Your task to perform on an android device: Show me popular games on the Play Store Image 0: 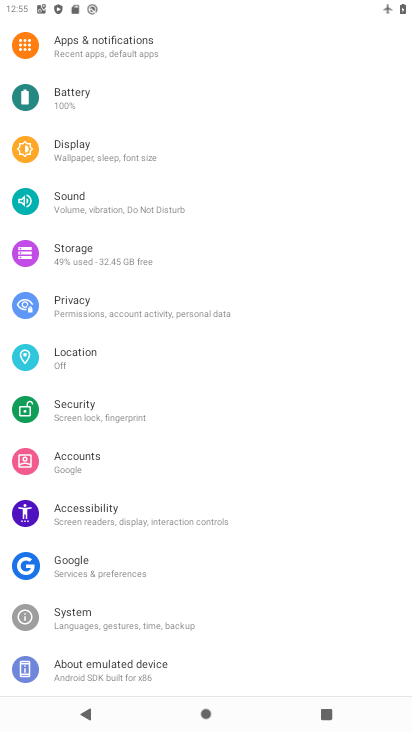
Step 0: press home button
Your task to perform on an android device: Show me popular games on the Play Store Image 1: 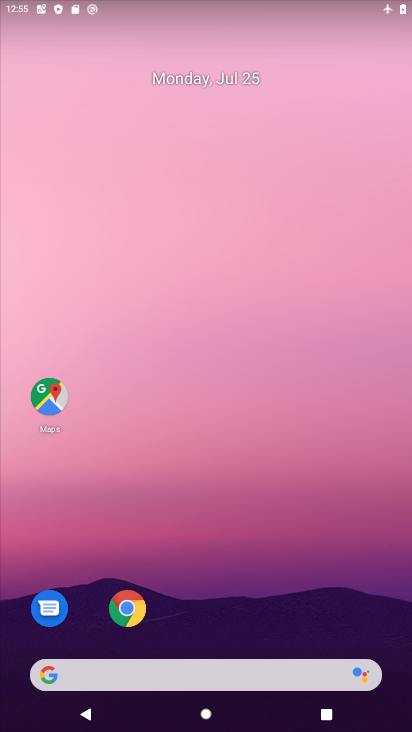
Step 1: drag from (220, 644) to (256, 20)
Your task to perform on an android device: Show me popular games on the Play Store Image 2: 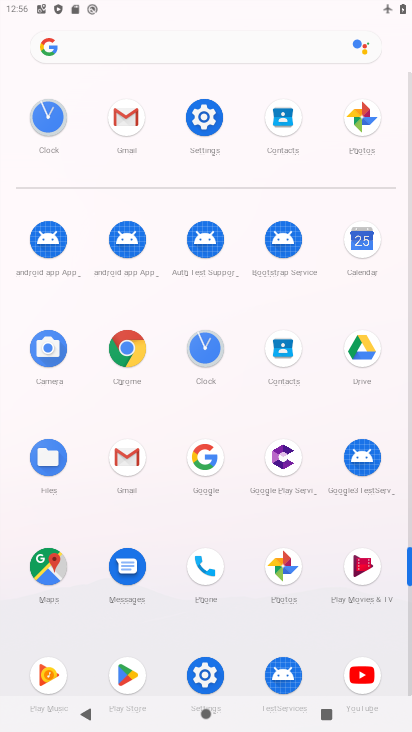
Step 2: drag from (383, 623) to (385, 433)
Your task to perform on an android device: Show me popular games on the Play Store Image 3: 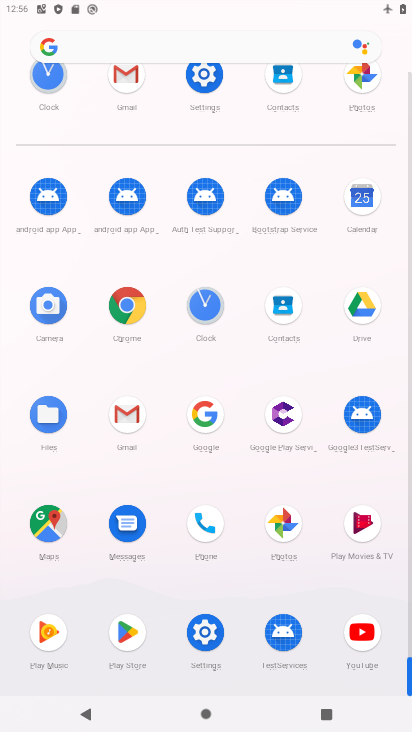
Step 3: click (122, 629)
Your task to perform on an android device: Show me popular games on the Play Store Image 4: 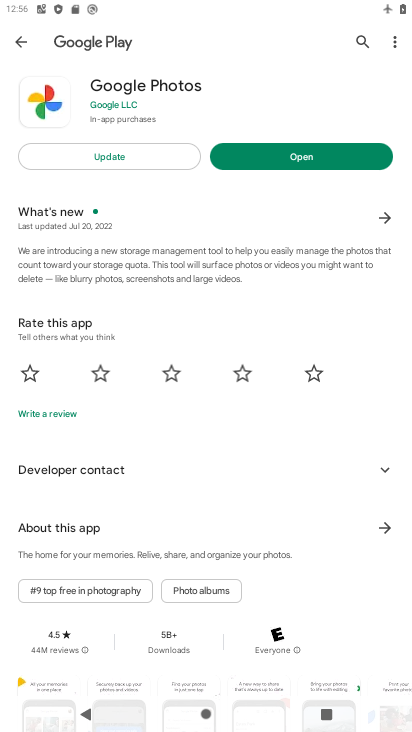
Step 4: click (31, 44)
Your task to perform on an android device: Show me popular games on the Play Store Image 5: 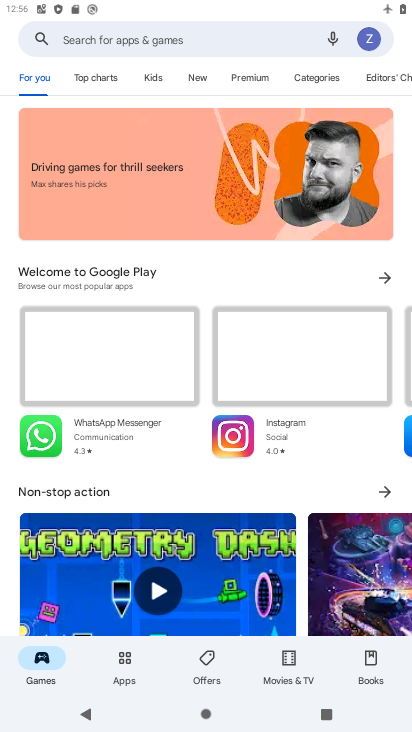
Step 5: drag from (217, 572) to (190, 267)
Your task to perform on an android device: Show me popular games on the Play Store Image 6: 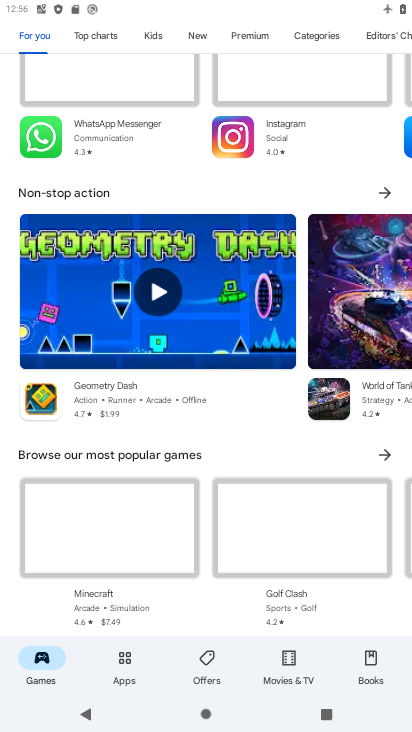
Step 6: click (144, 451)
Your task to perform on an android device: Show me popular games on the Play Store Image 7: 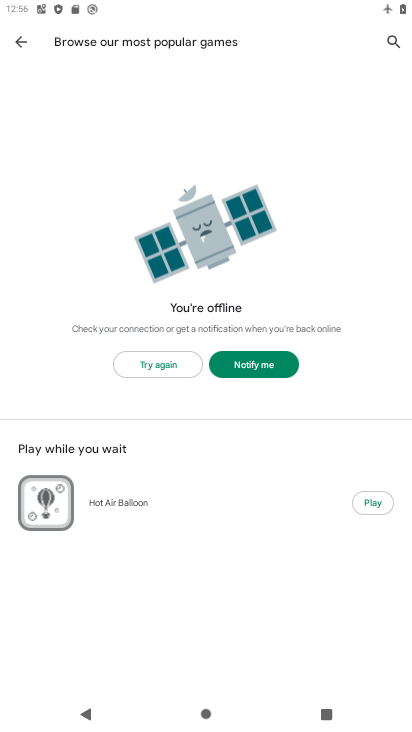
Step 7: task complete